Your task to perform on an android device: Open notification settings Image 0: 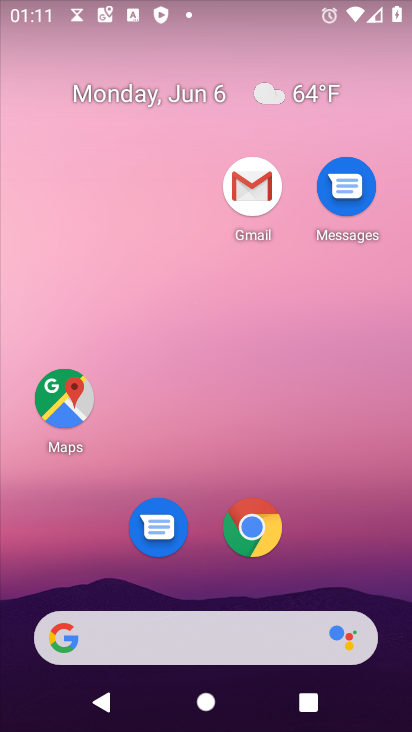
Step 0: drag from (334, 564) to (333, 38)
Your task to perform on an android device: Open notification settings Image 1: 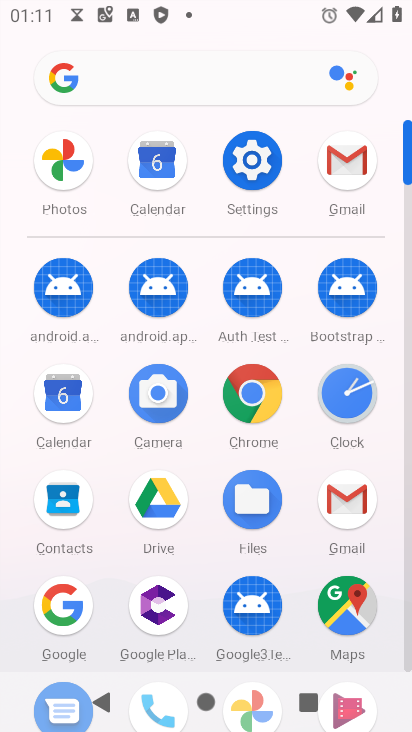
Step 1: click (261, 161)
Your task to perform on an android device: Open notification settings Image 2: 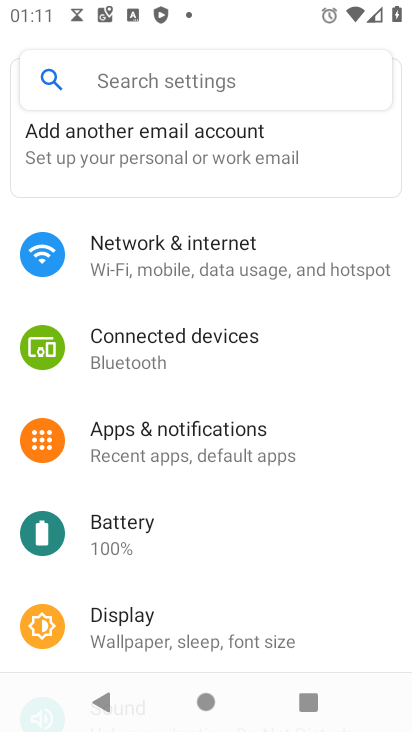
Step 2: click (210, 450)
Your task to perform on an android device: Open notification settings Image 3: 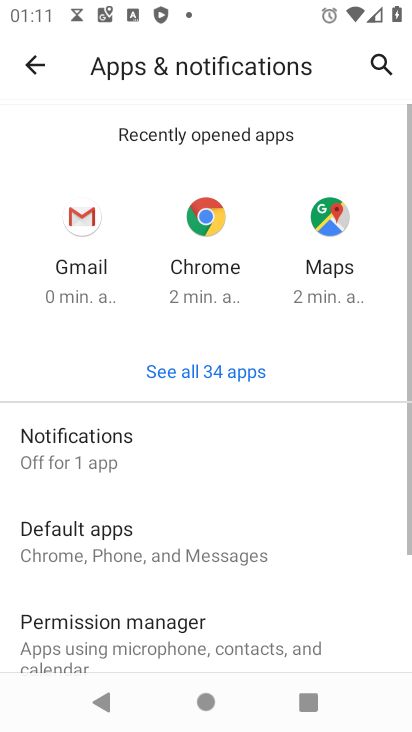
Step 3: click (175, 449)
Your task to perform on an android device: Open notification settings Image 4: 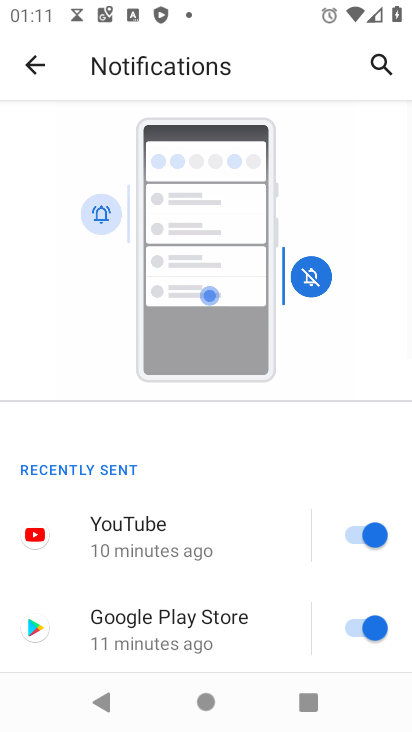
Step 4: task complete